Your task to perform on an android device: change the clock display to show seconds Image 0: 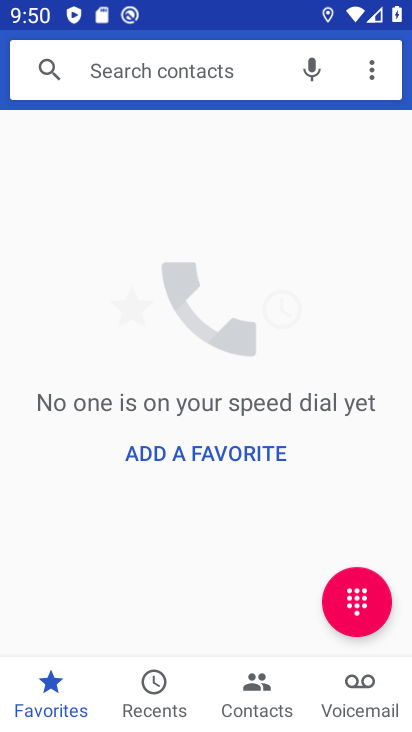
Step 0: press home button
Your task to perform on an android device: change the clock display to show seconds Image 1: 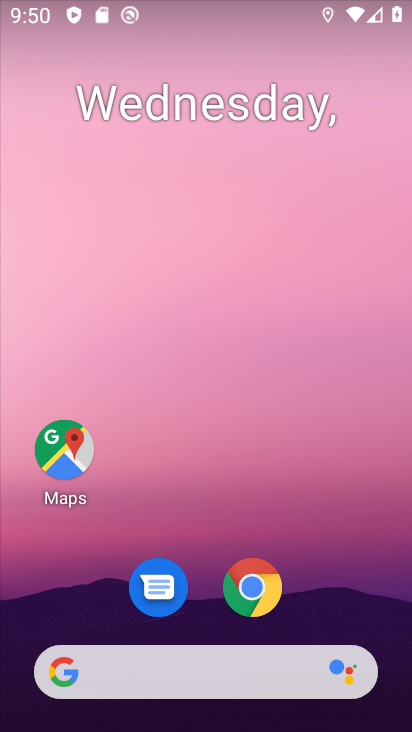
Step 1: drag from (337, 517) to (274, 140)
Your task to perform on an android device: change the clock display to show seconds Image 2: 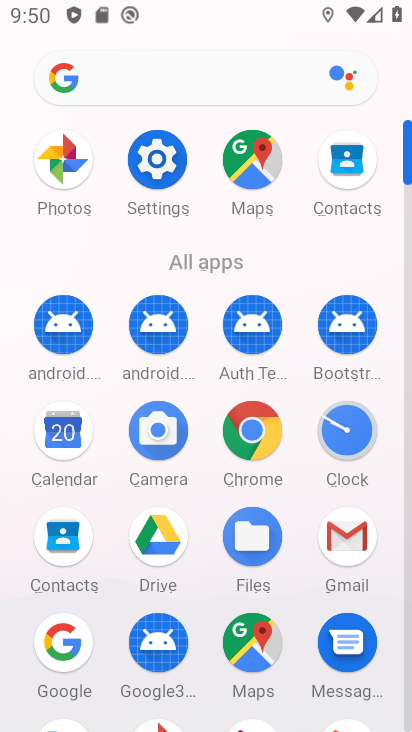
Step 2: click (336, 430)
Your task to perform on an android device: change the clock display to show seconds Image 3: 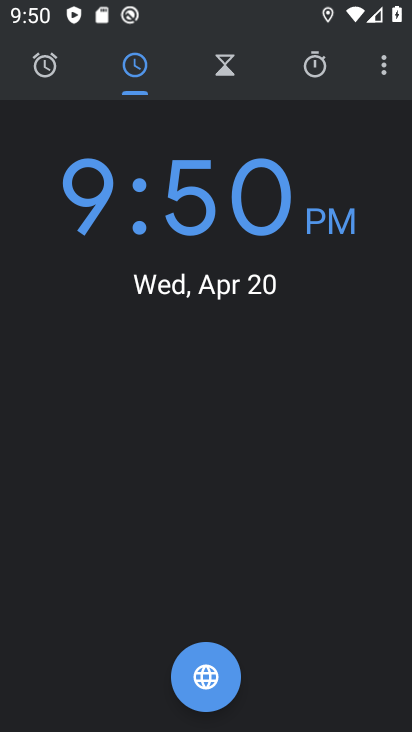
Step 3: click (383, 62)
Your task to perform on an android device: change the clock display to show seconds Image 4: 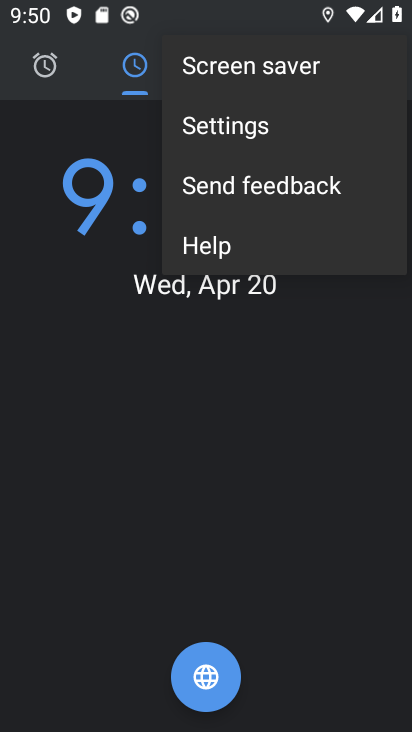
Step 4: click (220, 126)
Your task to perform on an android device: change the clock display to show seconds Image 5: 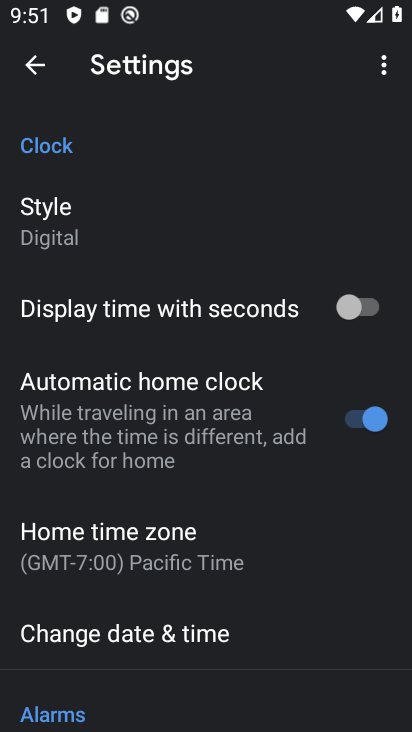
Step 5: click (361, 313)
Your task to perform on an android device: change the clock display to show seconds Image 6: 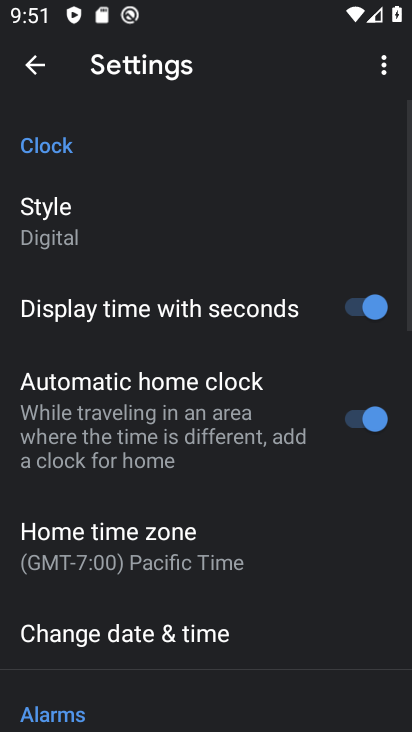
Step 6: task complete